Your task to perform on an android device: change notifications settings Image 0: 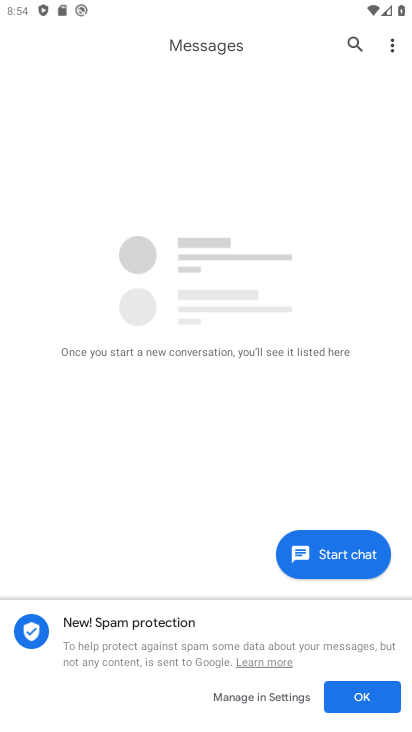
Step 0: press back button
Your task to perform on an android device: change notifications settings Image 1: 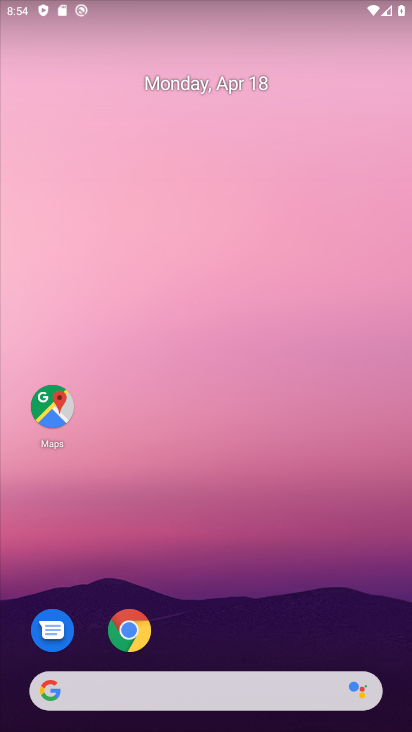
Step 1: drag from (332, 584) to (247, 33)
Your task to perform on an android device: change notifications settings Image 2: 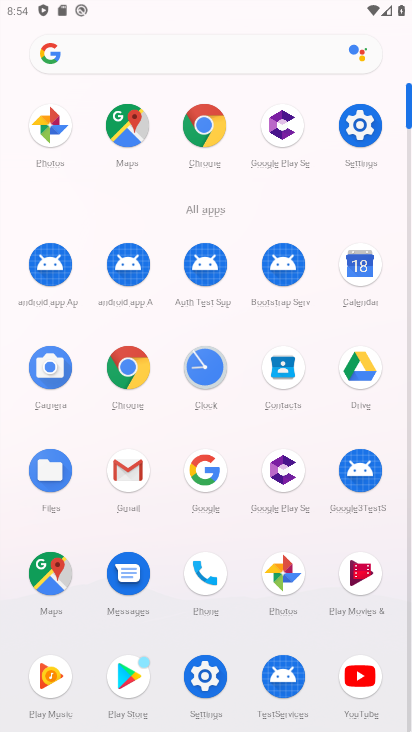
Step 2: click (358, 130)
Your task to perform on an android device: change notifications settings Image 3: 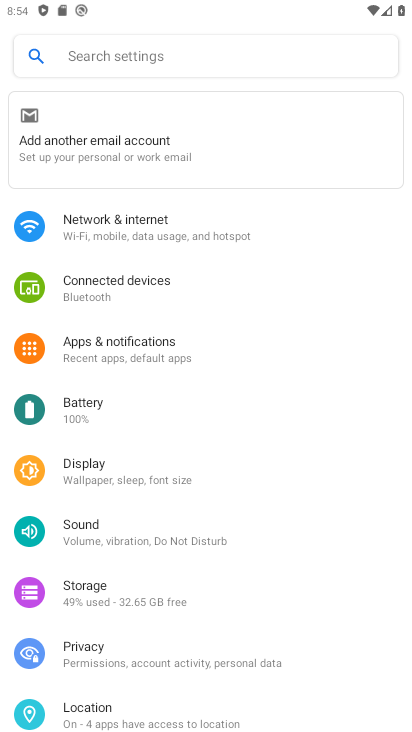
Step 3: click (268, 356)
Your task to perform on an android device: change notifications settings Image 4: 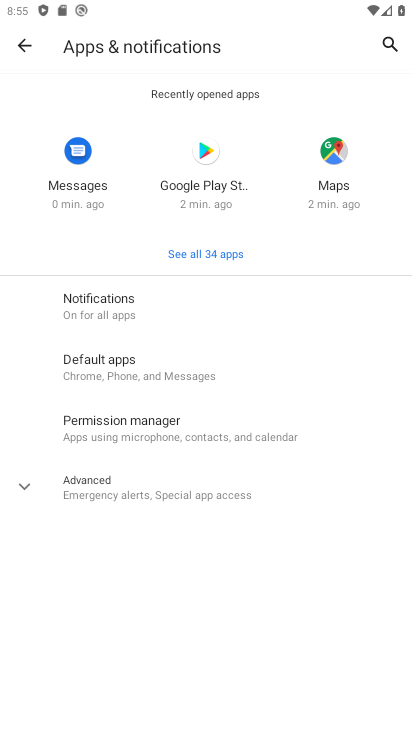
Step 4: click (146, 289)
Your task to perform on an android device: change notifications settings Image 5: 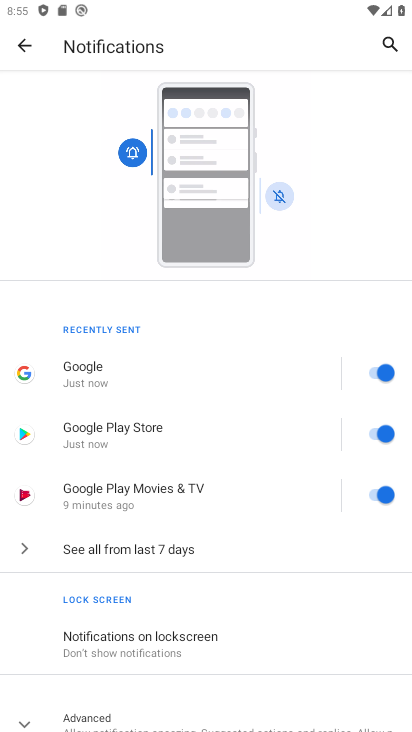
Step 5: click (85, 545)
Your task to perform on an android device: change notifications settings Image 6: 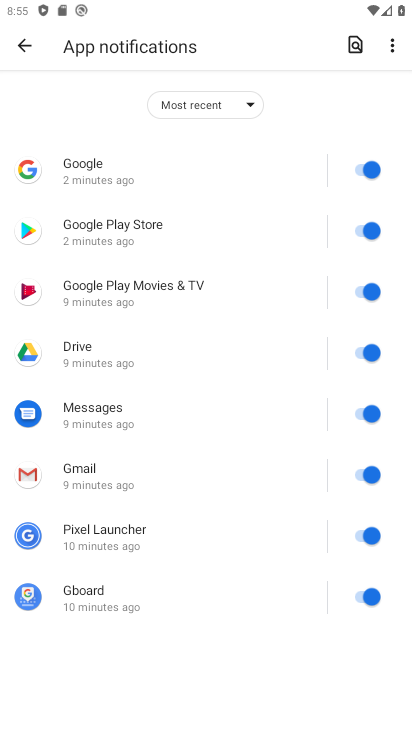
Step 6: click (352, 175)
Your task to perform on an android device: change notifications settings Image 7: 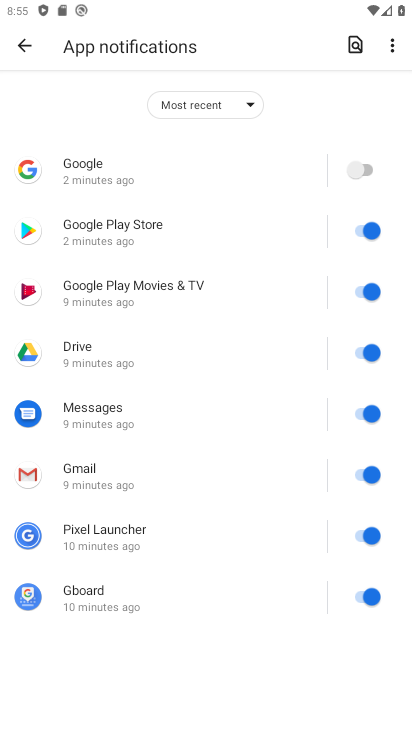
Step 7: click (355, 236)
Your task to perform on an android device: change notifications settings Image 8: 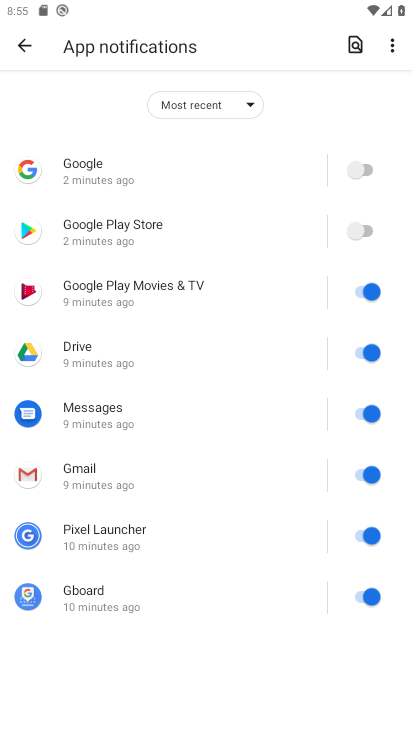
Step 8: click (351, 295)
Your task to perform on an android device: change notifications settings Image 9: 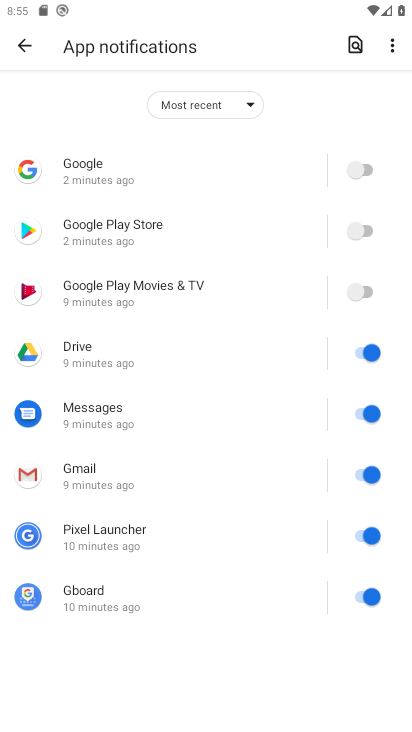
Step 9: click (341, 345)
Your task to perform on an android device: change notifications settings Image 10: 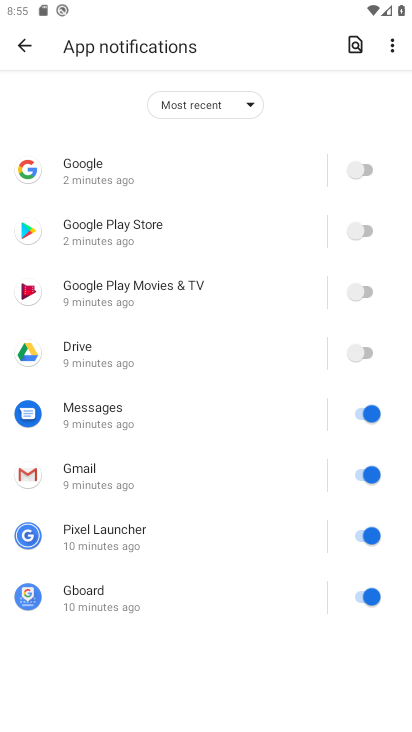
Step 10: click (368, 407)
Your task to perform on an android device: change notifications settings Image 11: 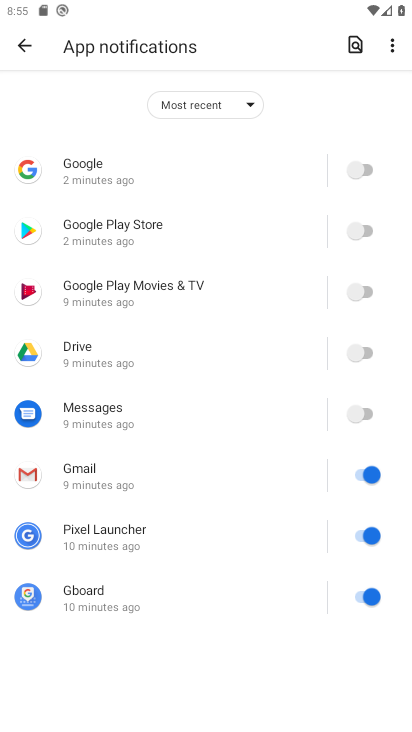
Step 11: click (372, 472)
Your task to perform on an android device: change notifications settings Image 12: 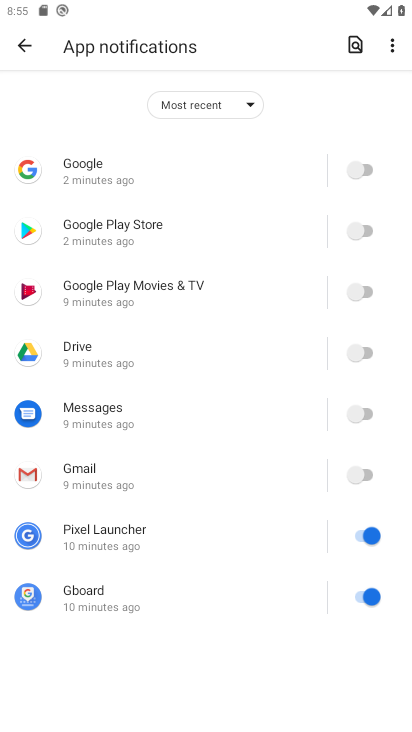
Step 12: click (364, 533)
Your task to perform on an android device: change notifications settings Image 13: 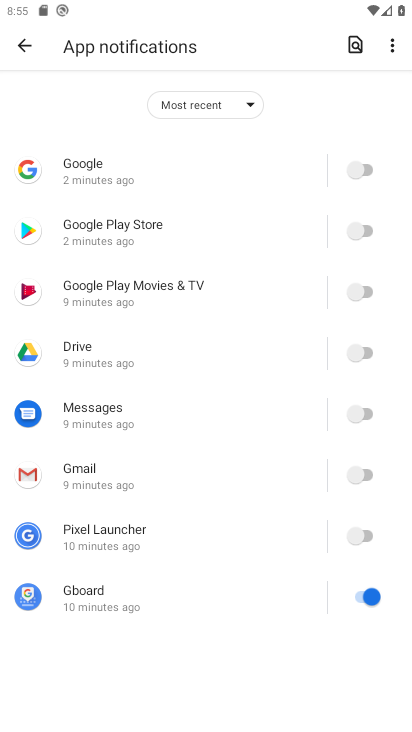
Step 13: click (376, 590)
Your task to perform on an android device: change notifications settings Image 14: 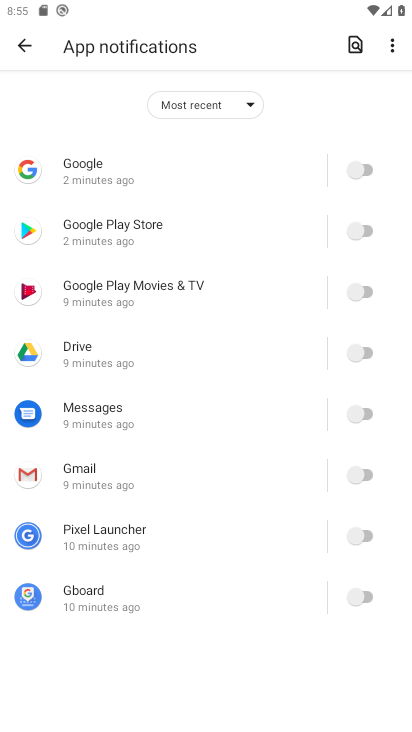
Step 14: click (22, 46)
Your task to perform on an android device: change notifications settings Image 15: 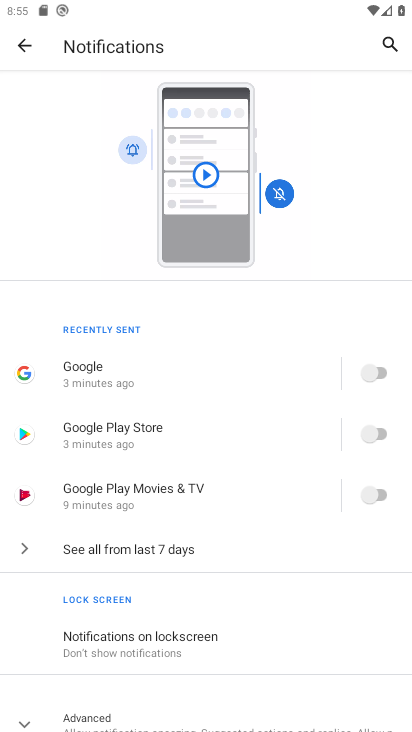
Step 15: click (167, 635)
Your task to perform on an android device: change notifications settings Image 16: 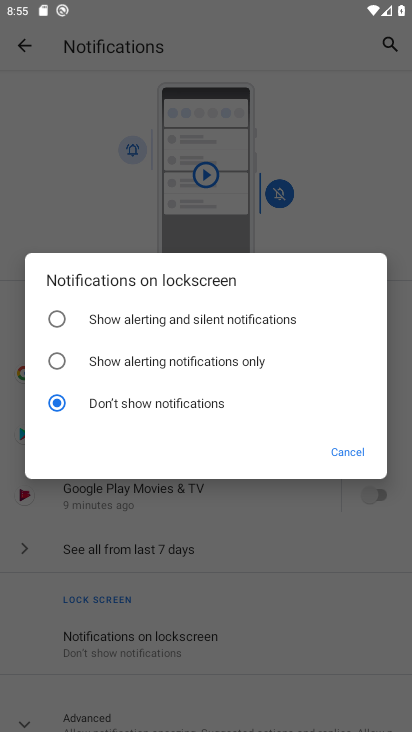
Step 16: click (183, 316)
Your task to perform on an android device: change notifications settings Image 17: 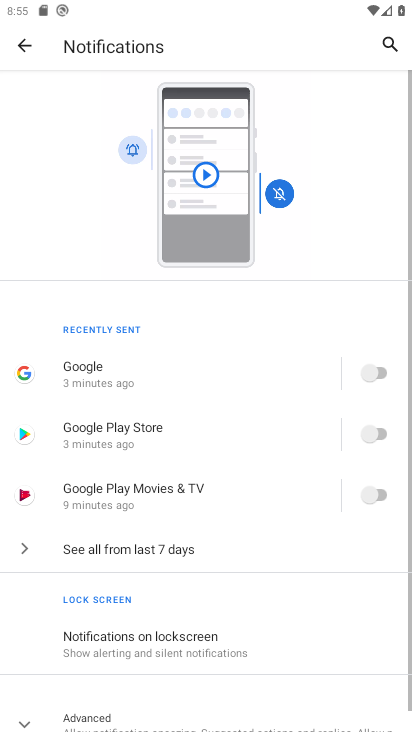
Step 17: drag from (262, 633) to (261, 258)
Your task to perform on an android device: change notifications settings Image 18: 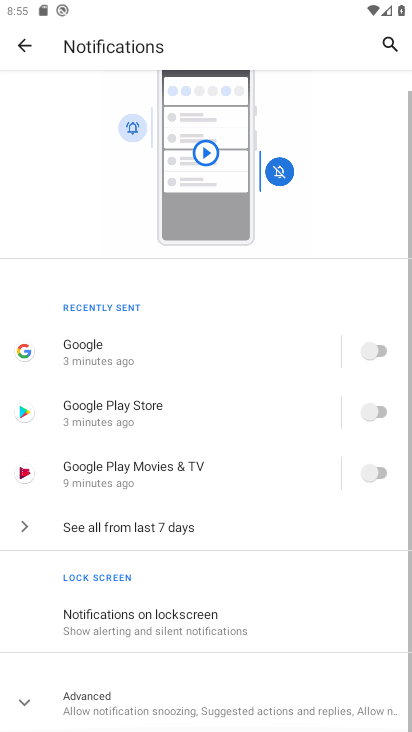
Step 18: click (239, 700)
Your task to perform on an android device: change notifications settings Image 19: 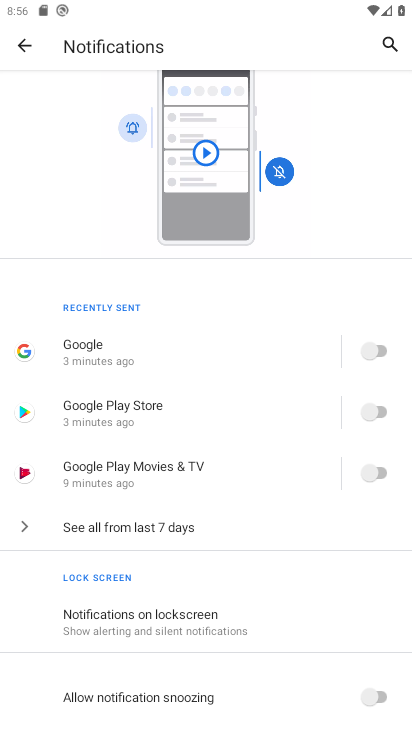
Step 19: drag from (292, 693) to (306, 371)
Your task to perform on an android device: change notifications settings Image 20: 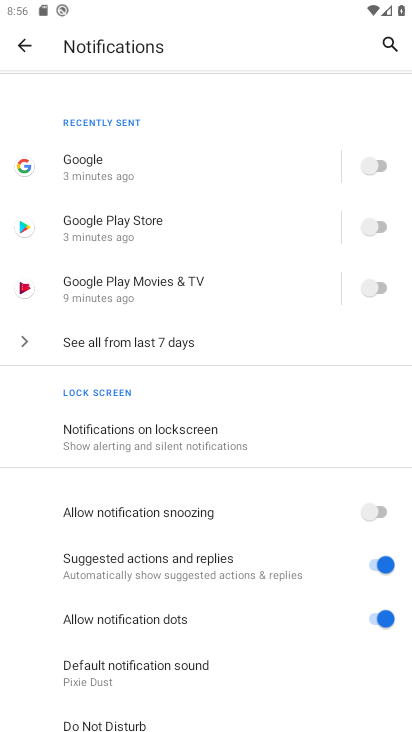
Step 20: click (382, 520)
Your task to perform on an android device: change notifications settings Image 21: 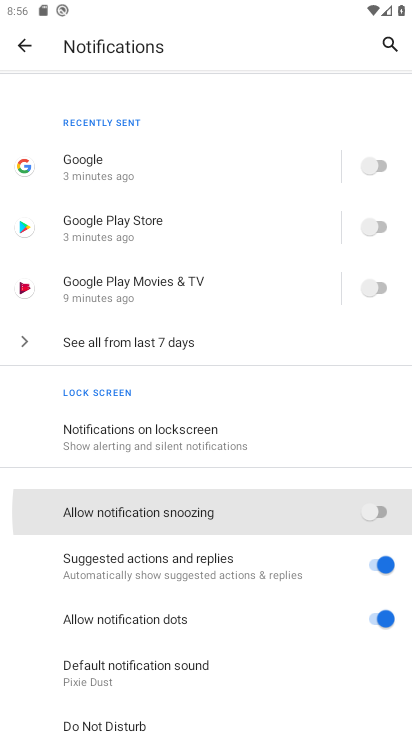
Step 21: click (375, 552)
Your task to perform on an android device: change notifications settings Image 22: 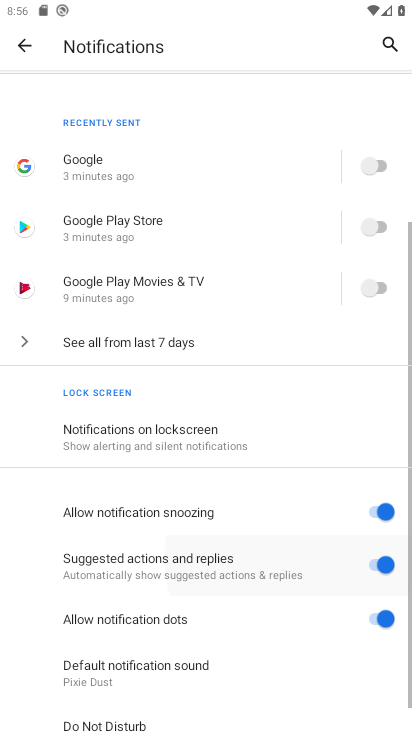
Step 22: click (390, 611)
Your task to perform on an android device: change notifications settings Image 23: 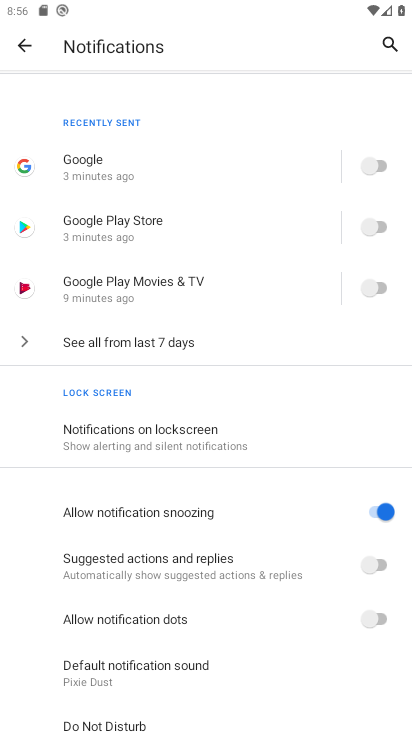
Step 23: task complete